Your task to perform on an android device: Do I have any events this weekend? Image 0: 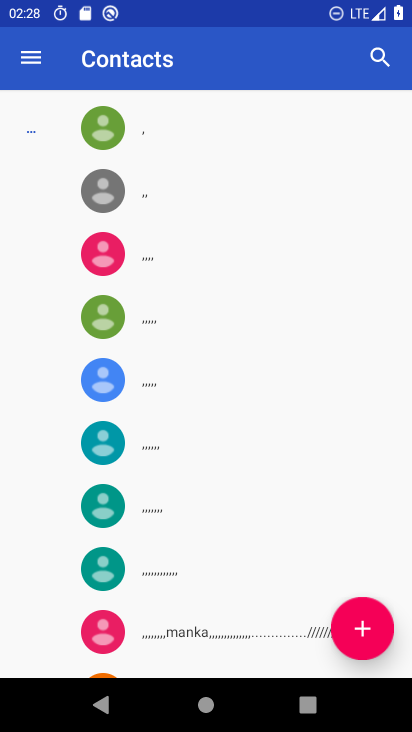
Step 0: press home button
Your task to perform on an android device: Do I have any events this weekend? Image 1: 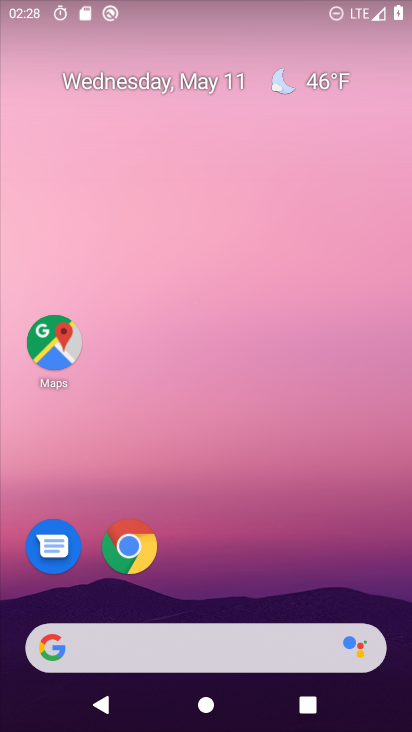
Step 1: drag from (251, 643) to (245, 154)
Your task to perform on an android device: Do I have any events this weekend? Image 2: 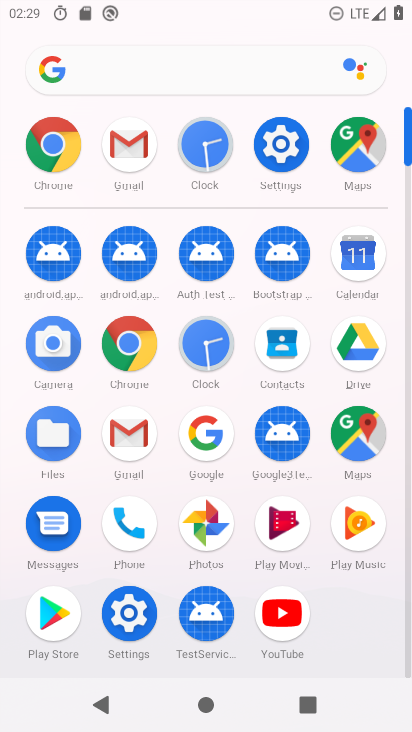
Step 2: click (143, 59)
Your task to perform on an android device: Do I have any events this weekend? Image 3: 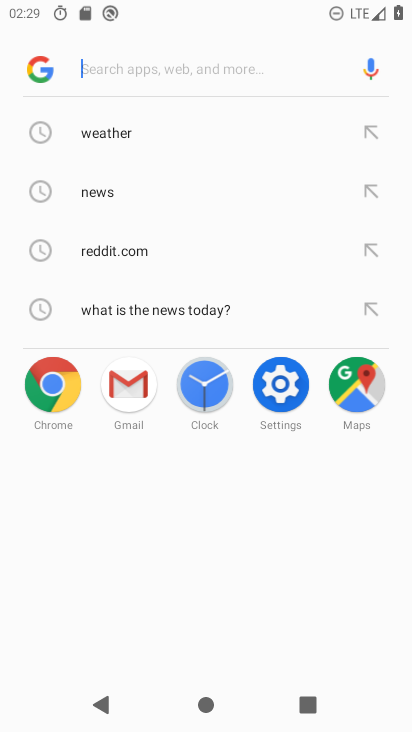
Step 3: press home button
Your task to perform on an android device: Do I have any events this weekend? Image 4: 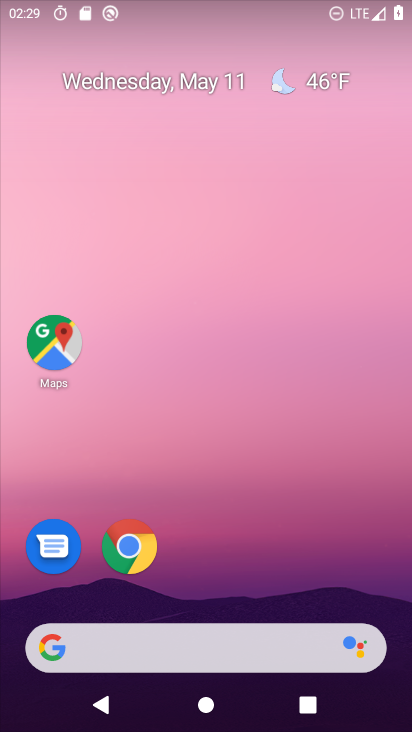
Step 4: drag from (301, 670) to (250, 146)
Your task to perform on an android device: Do I have any events this weekend? Image 5: 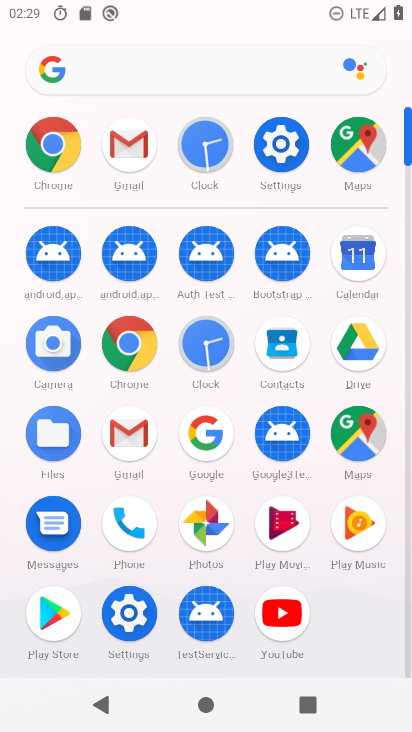
Step 5: click (371, 252)
Your task to perform on an android device: Do I have any events this weekend? Image 6: 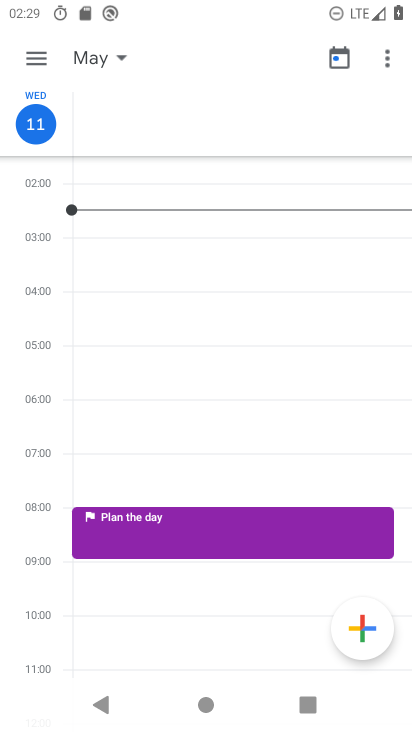
Step 6: click (45, 57)
Your task to perform on an android device: Do I have any events this weekend? Image 7: 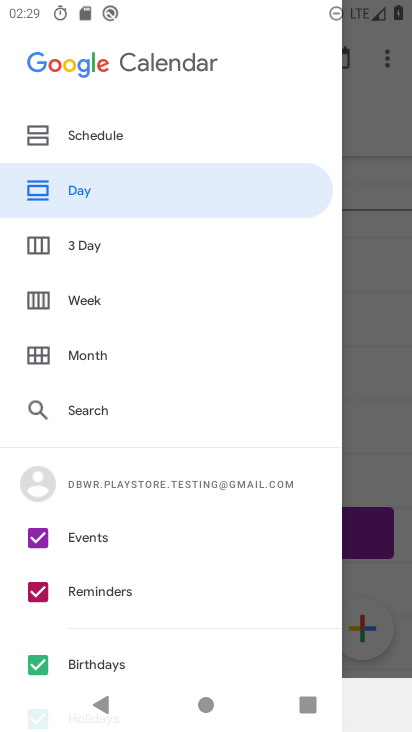
Step 7: click (79, 305)
Your task to perform on an android device: Do I have any events this weekend? Image 8: 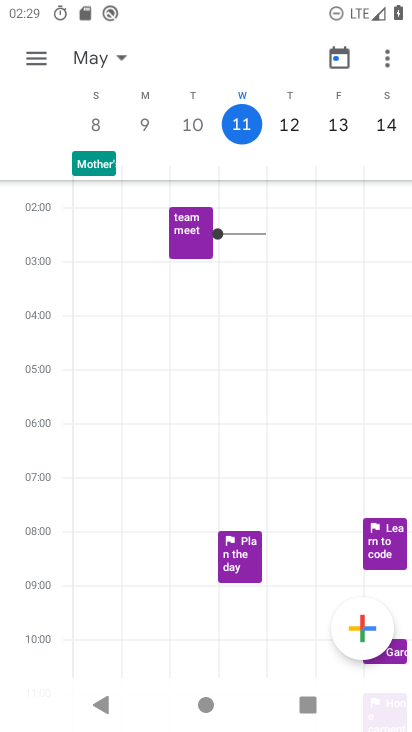
Step 8: task complete